Your task to perform on an android device: Open accessibility settings Image 0: 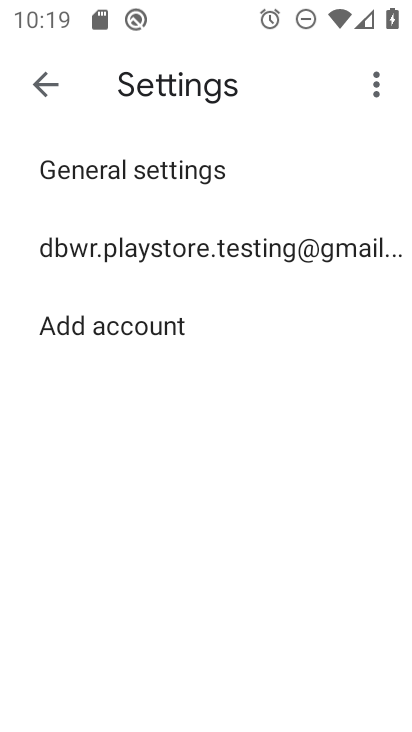
Step 0: press home button
Your task to perform on an android device: Open accessibility settings Image 1: 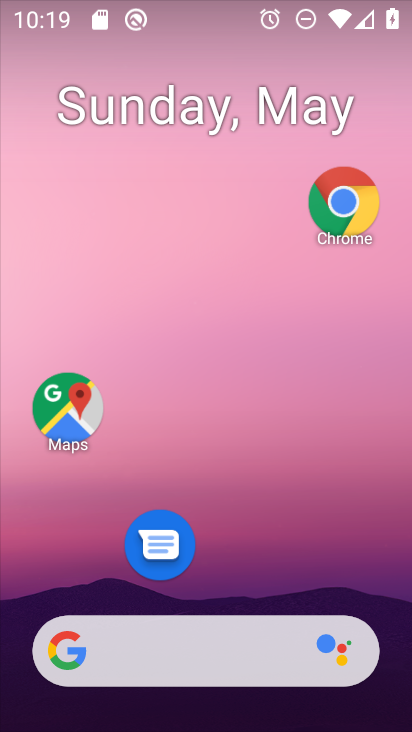
Step 1: drag from (275, 571) to (272, 42)
Your task to perform on an android device: Open accessibility settings Image 2: 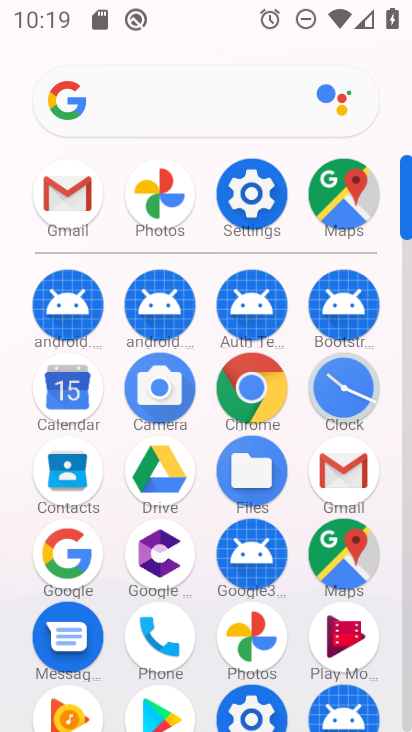
Step 2: click (254, 203)
Your task to perform on an android device: Open accessibility settings Image 3: 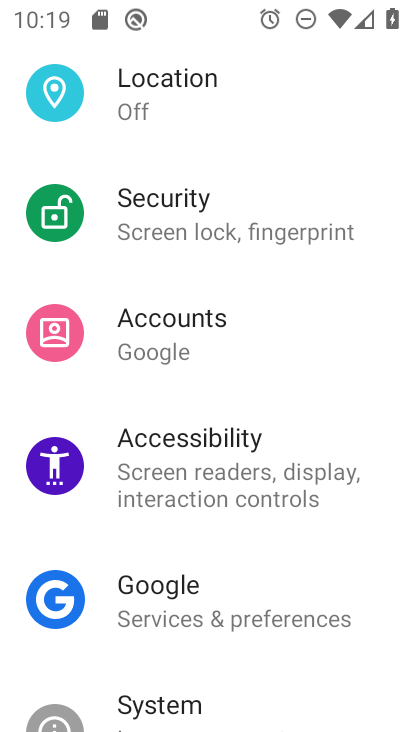
Step 3: click (229, 484)
Your task to perform on an android device: Open accessibility settings Image 4: 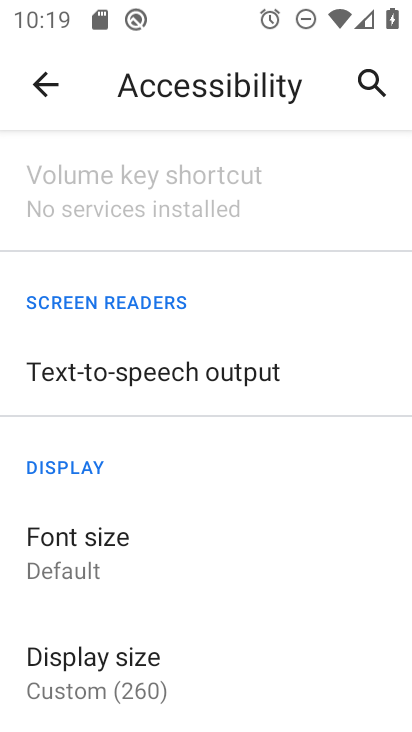
Step 4: task complete